Your task to perform on an android device: Open Reddit.com Image 0: 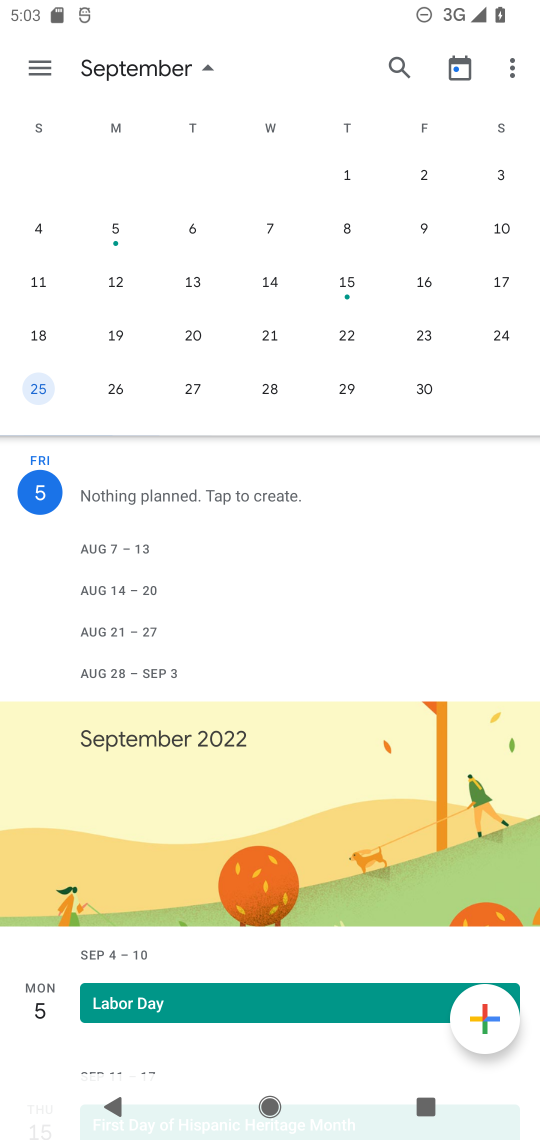
Step 0: press home button
Your task to perform on an android device: Open Reddit.com Image 1: 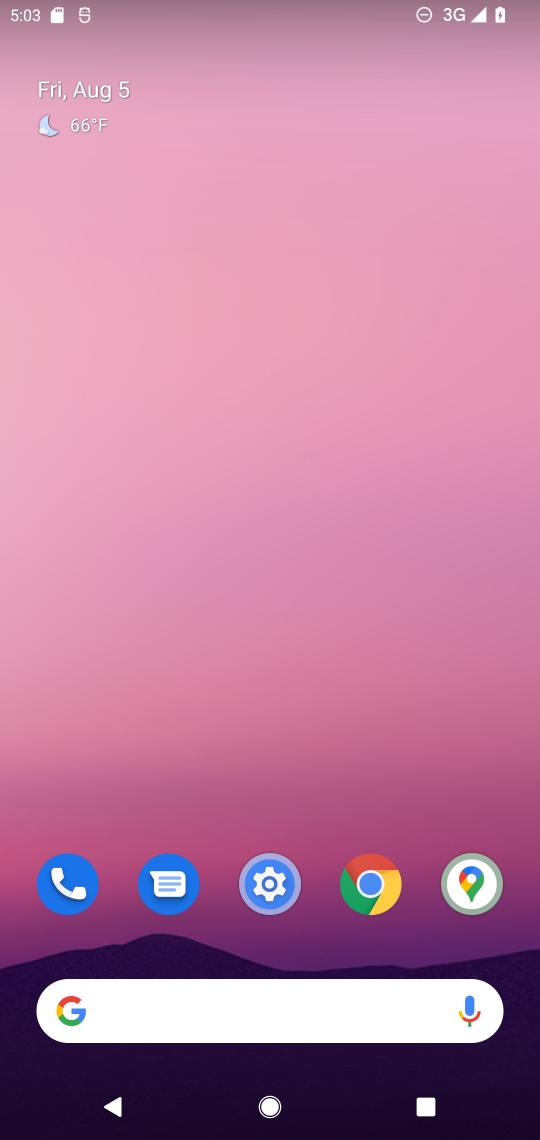
Step 1: drag from (417, 939) to (311, 50)
Your task to perform on an android device: Open Reddit.com Image 2: 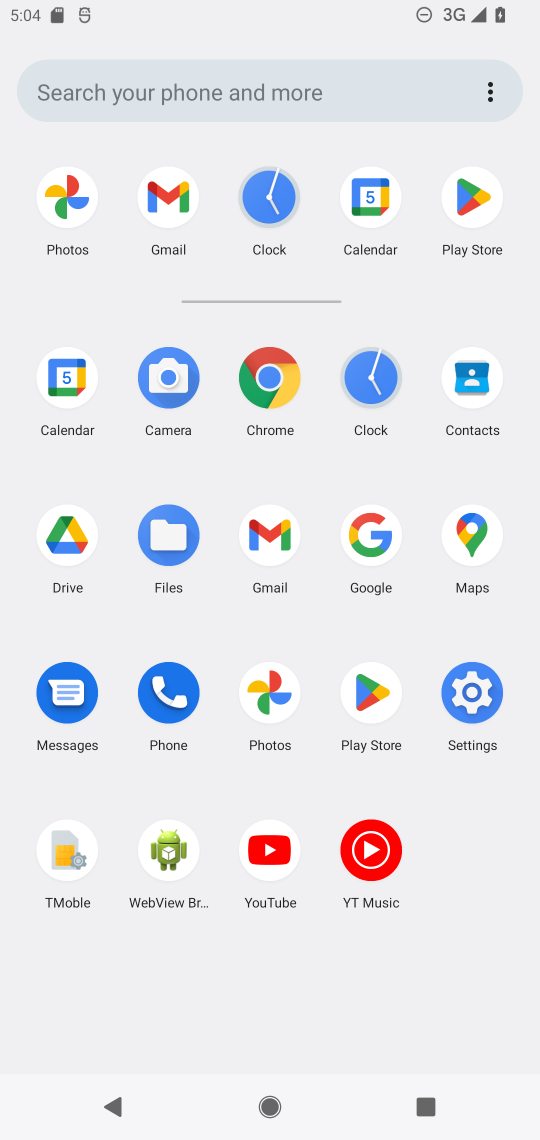
Step 2: click (389, 544)
Your task to perform on an android device: Open Reddit.com Image 3: 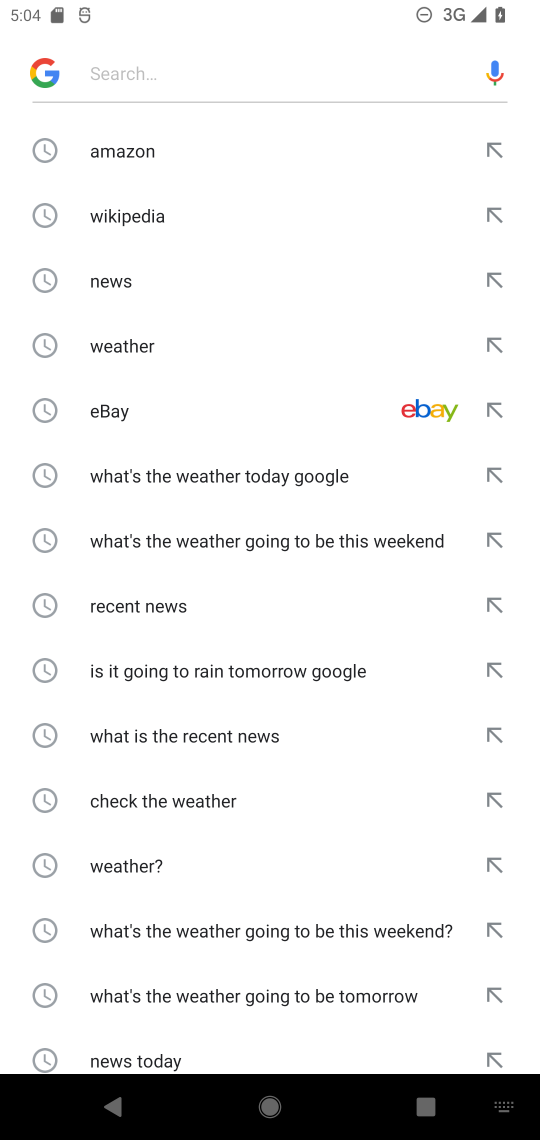
Step 3: type "Reddit.com"
Your task to perform on an android device: Open Reddit.com Image 4: 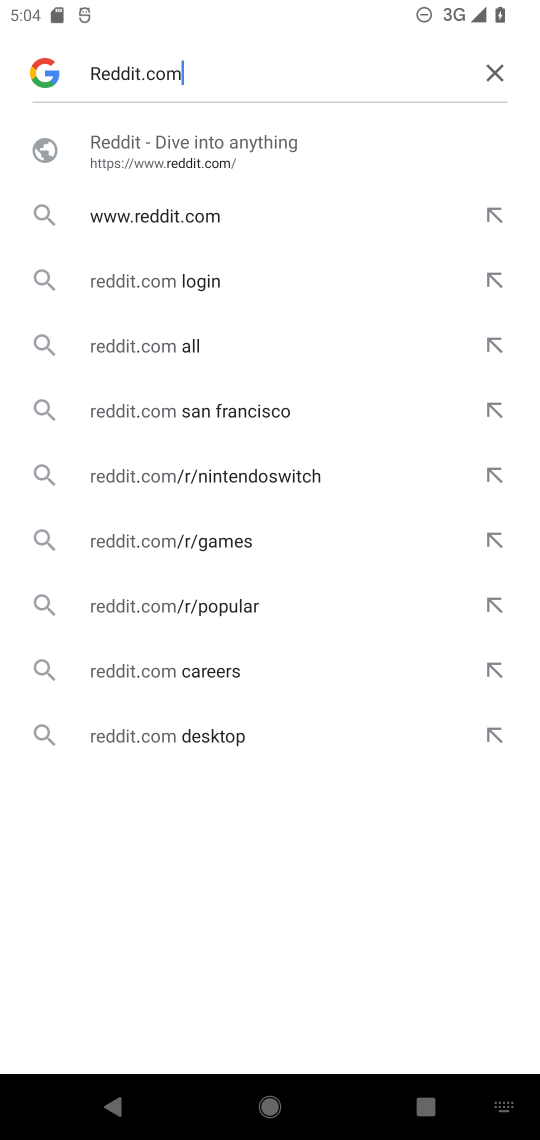
Step 4: click (175, 169)
Your task to perform on an android device: Open Reddit.com Image 5: 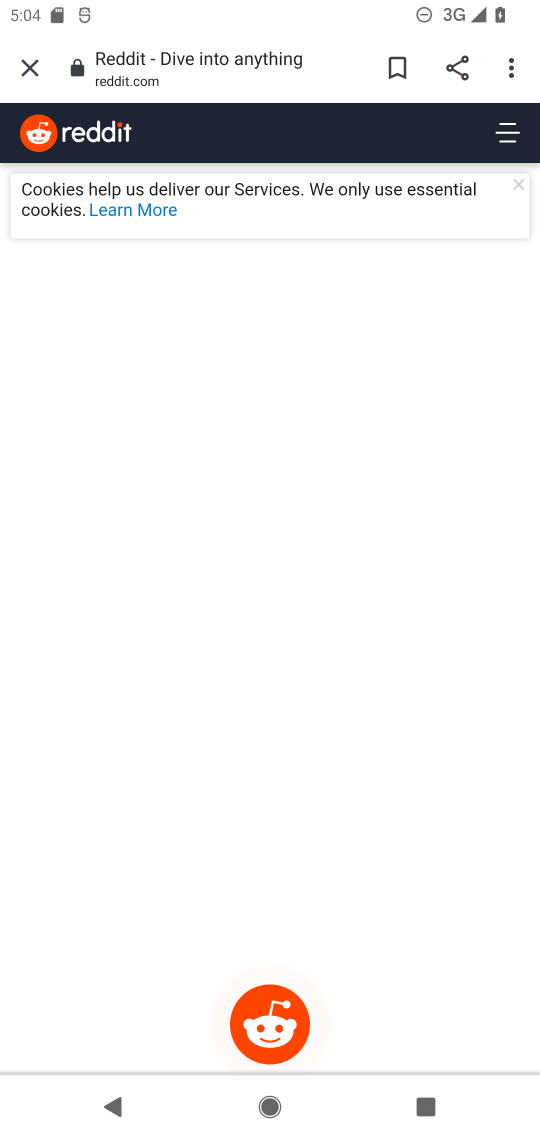
Step 5: task complete